Your task to perform on an android device: Go to Yahoo.com Image 0: 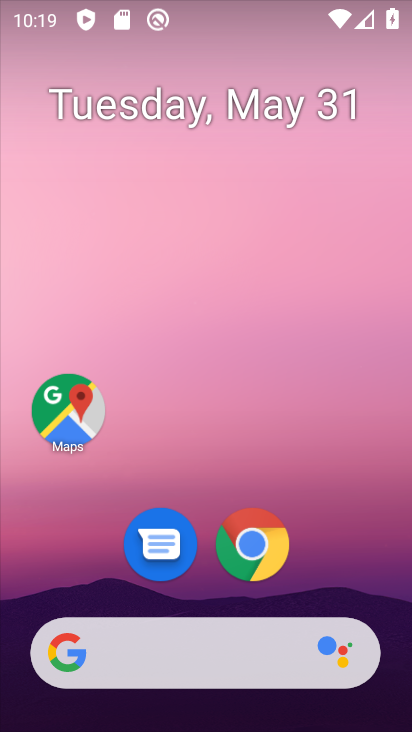
Step 0: click (258, 552)
Your task to perform on an android device: Go to Yahoo.com Image 1: 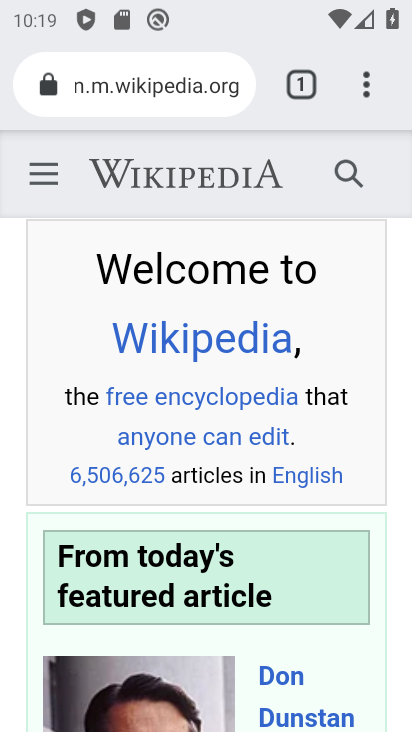
Step 1: click (300, 83)
Your task to perform on an android device: Go to Yahoo.com Image 2: 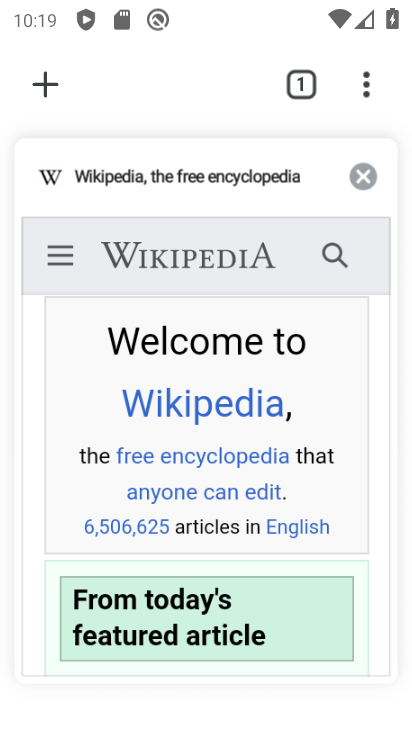
Step 2: click (43, 66)
Your task to perform on an android device: Go to Yahoo.com Image 3: 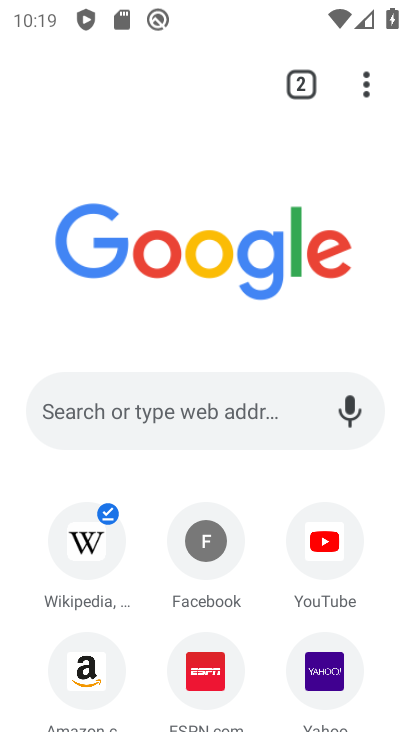
Step 3: click (317, 663)
Your task to perform on an android device: Go to Yahoo.com Image 4: 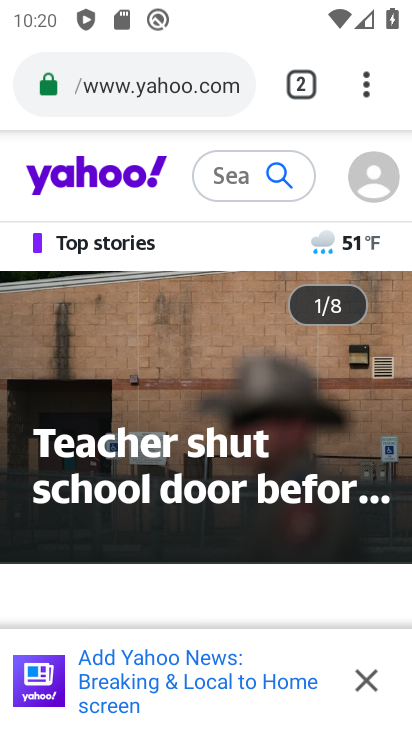
Step 4: task complete